Your task to perform on an android device: Search for pizza restaurants on Maps Image 0: 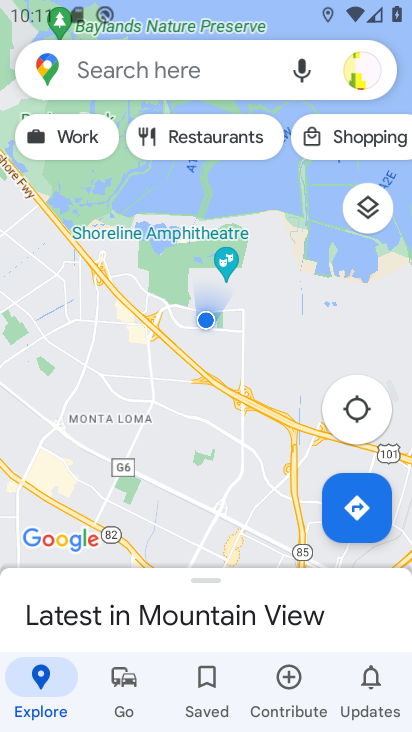
Step 0: drag from (308, 253) to (300, 148)
Your task to perform on an android device: Search for pizza restaurants on Maps Image 1: 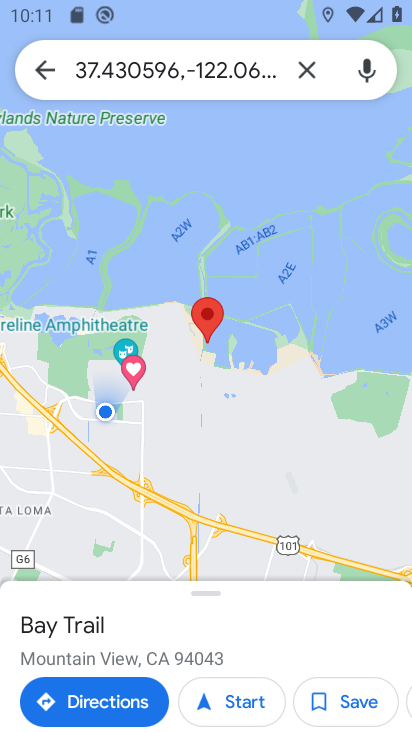
Step 1: click (254, 60)
Your task to perform on an android device: Search for pizza restaurants on Maps Image 2: 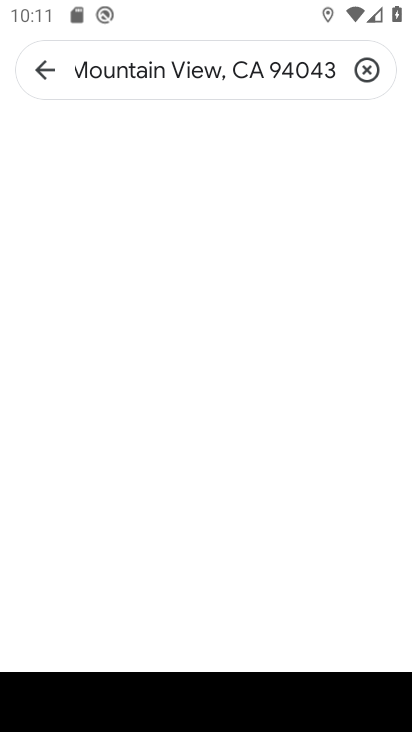
Step 2: click (371, 73)
Your task to perform on an android device: Search for pizza restaurants on Maps Image 3: 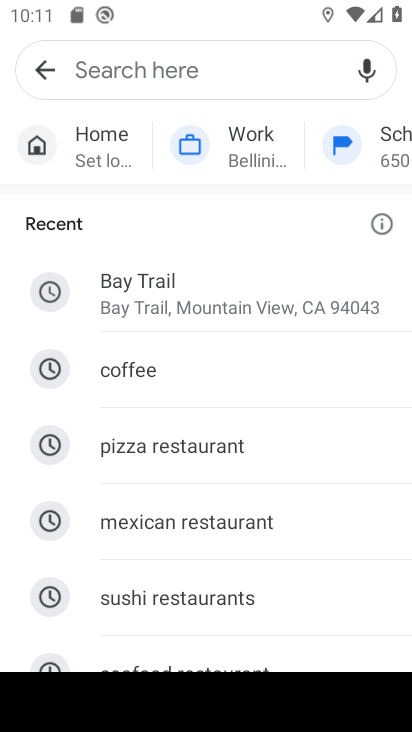
Step 3: drag from (277, 380) to (283, 264)
Your task to perform on an android device: Search for pizza restaurants on Maps Image 4: 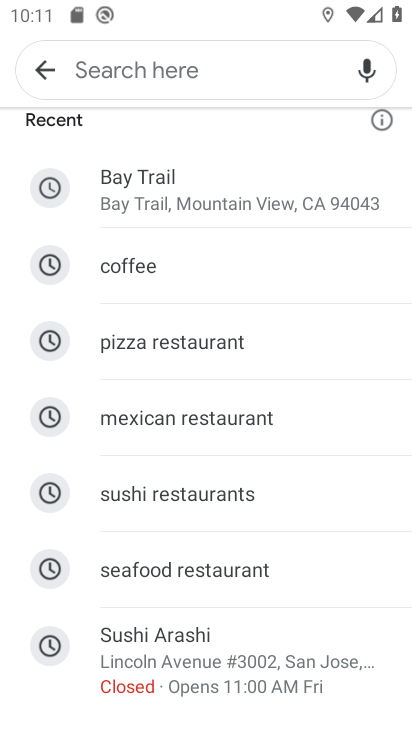
Step 4: click (255, 342)
Your task to perform on an android device: Search for pizza restaurants on Maps Image 5: 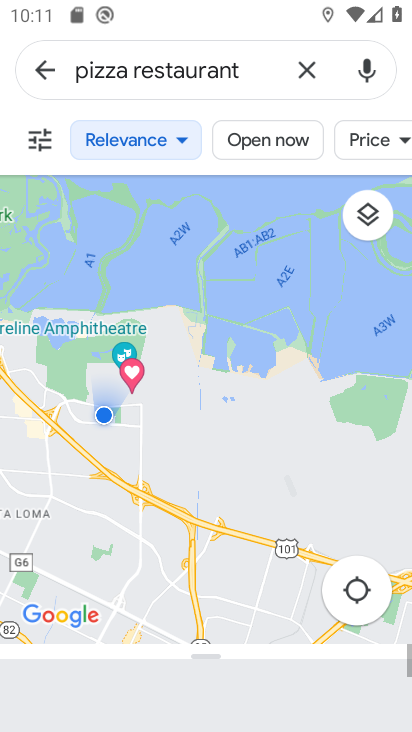
Step 5: task complete